Your task to perform on an android device: Open Android settings Image 0: 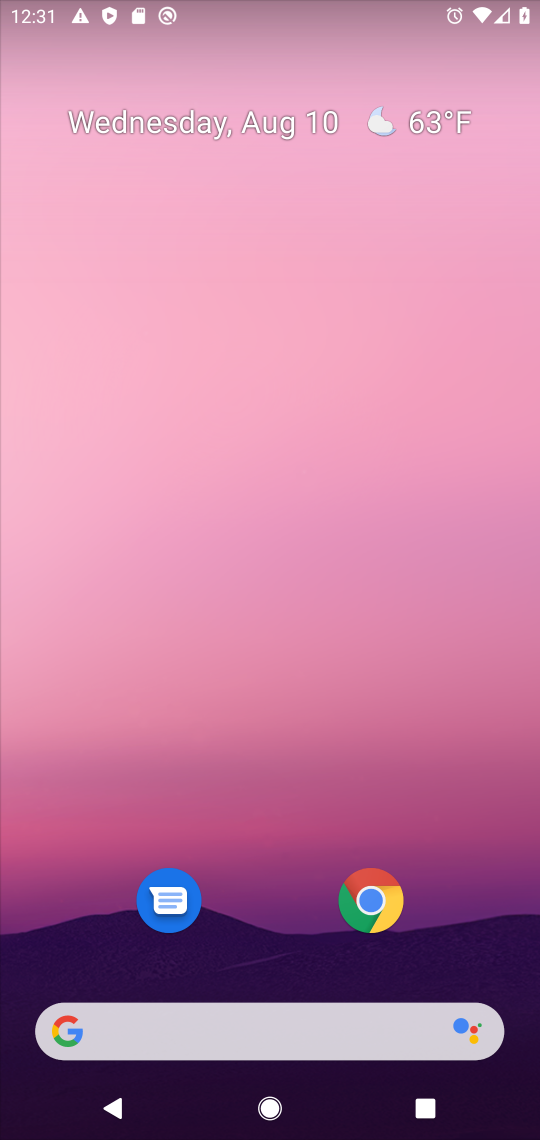
Step 0: drag from (262, 860) to (223, 0)
Your task to perform on an android device: Open Android settings Image 1: 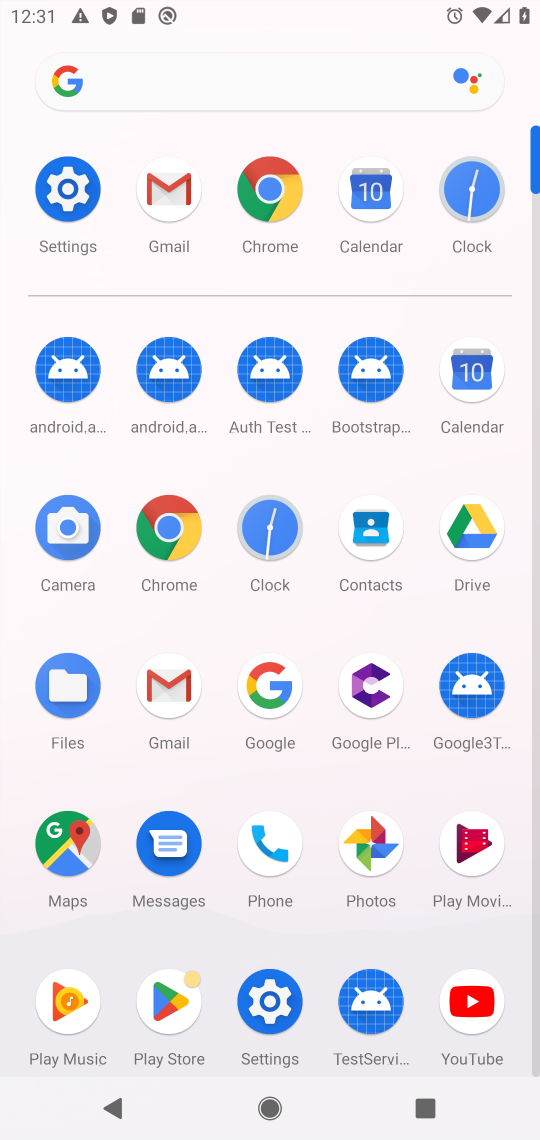
Step 1: click (75, 185)
Your task to perform on an android device: Open Android settings Image 2: 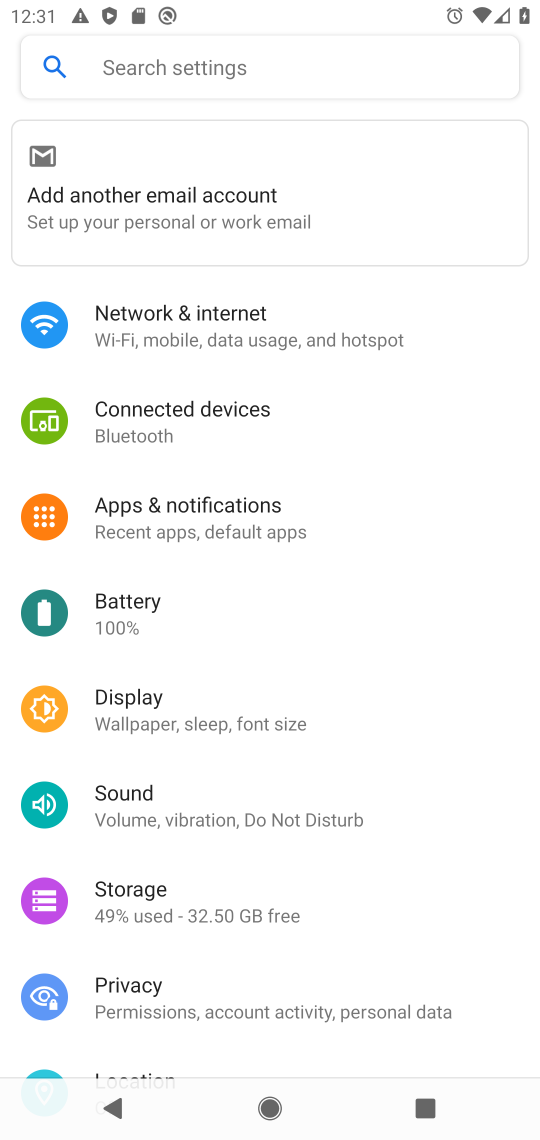
Step 2: drag from (247, 906) to (285, 17)
Your task to perform on an android device: Open Android settings Image 3: 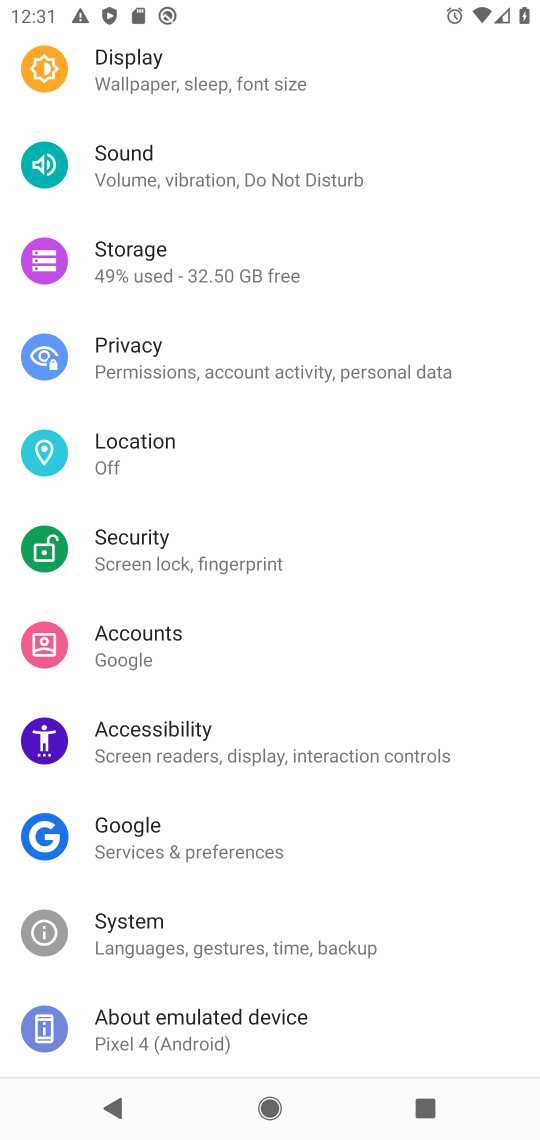
Step 3: click (281, 1014)
Your task to perform on an android device: Open Android settings Image 4: 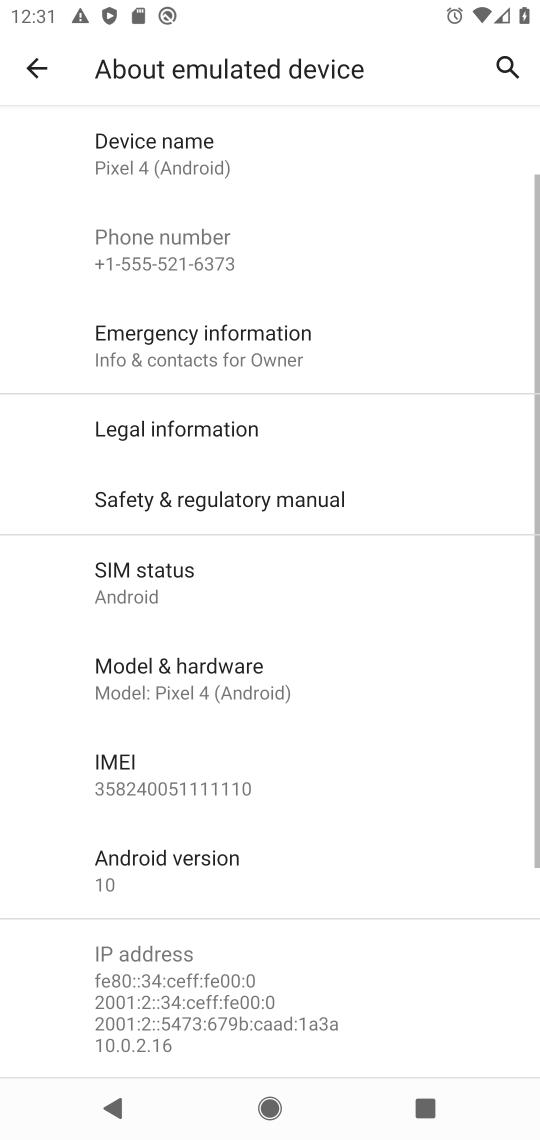
Step 4: task complete